Your task to perform on an android device: empty trash in the gmail app Image 0: 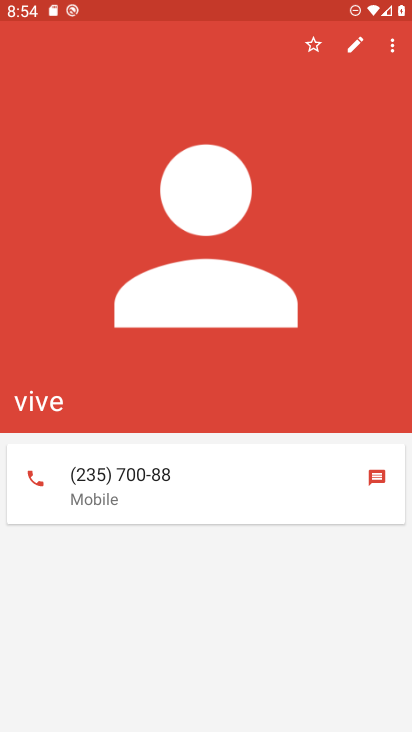
Step 0: press home button
Your task to perform on an android device: empty trash in the gmail app Image 1: 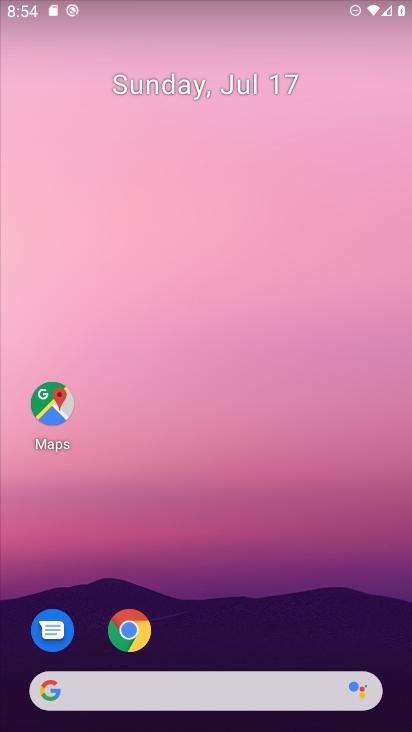
Step 1: drag from (226, 619) to (225, 169)
Your task to perform on an android device: empty trash in the gmail app Image 2: 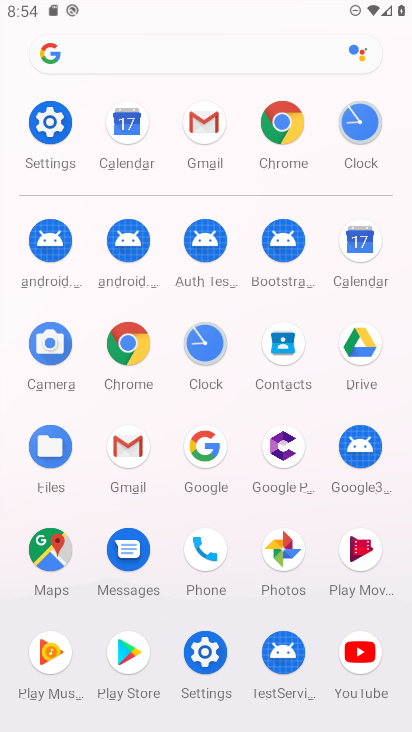
Step 2: click (220, 114)
Your task to perform on an android device: empty trash in the gmail app Image 3: 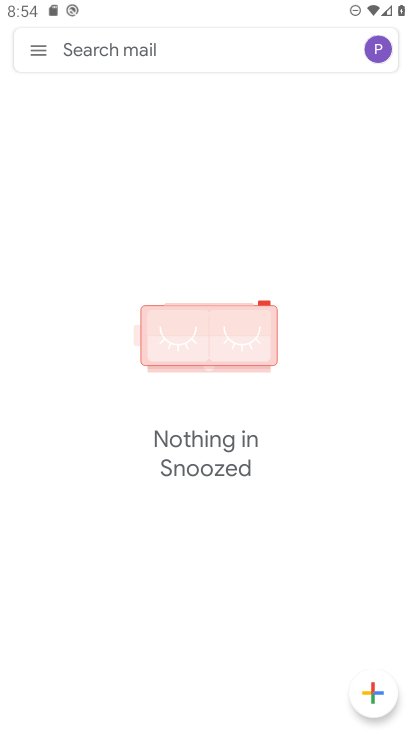
Step 3: click (27, 42)
Your task to perform on an android device: empty trash in the gmail app Image 4: 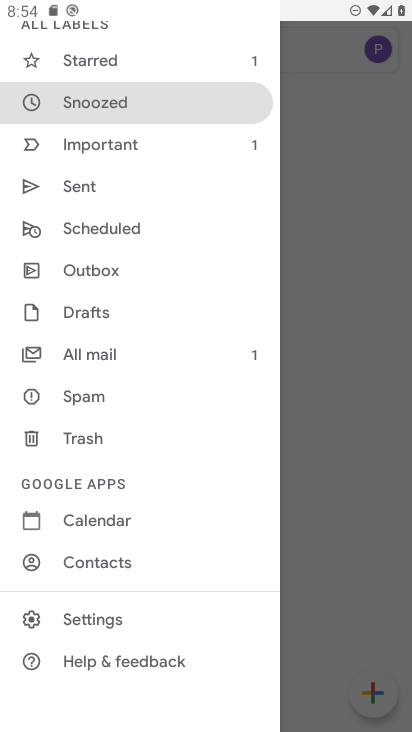
Step 4: click (73, 428)
Your task to perform on an android device: empty trash in the gmail app Image 5: 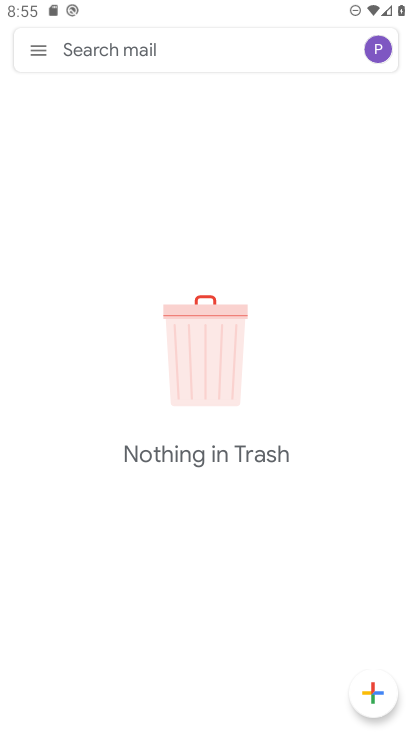
Step 5: task complete